Your task to perform on an android device: open app "Instagram" (install if not already installed) Image 0: 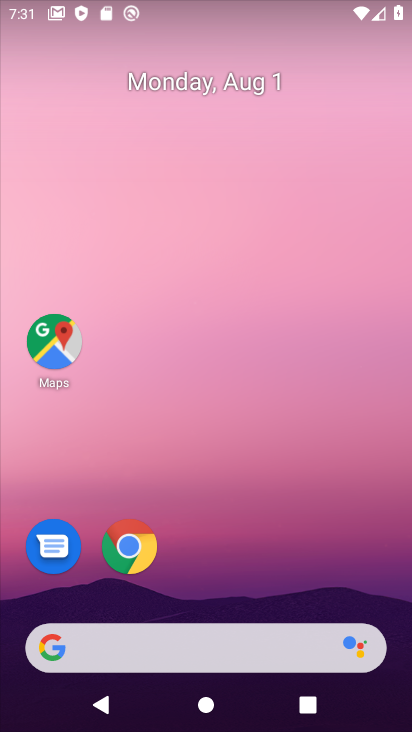
Step 0: drag from (243, 566) to (253, 57)
Your task to perform on an android device: open app "Instagram" (install if not already installed) Image 1: 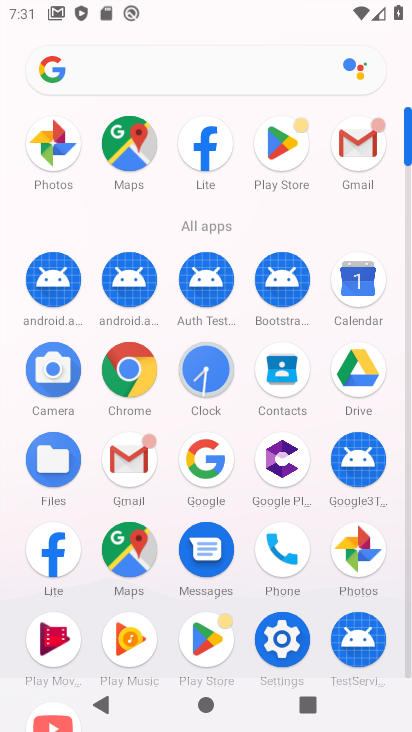
Step 1: click (202, 627)
Your task to perform on an android device: open app "Instagram" (install if not already installed) Image 2: 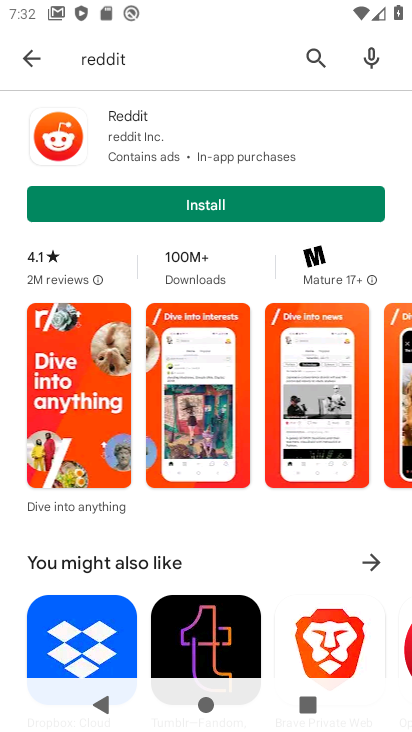
Step 2: click (276, 56)
Your task to perform on an android device: open app "Instagram" (install if not already installed) Image 3: 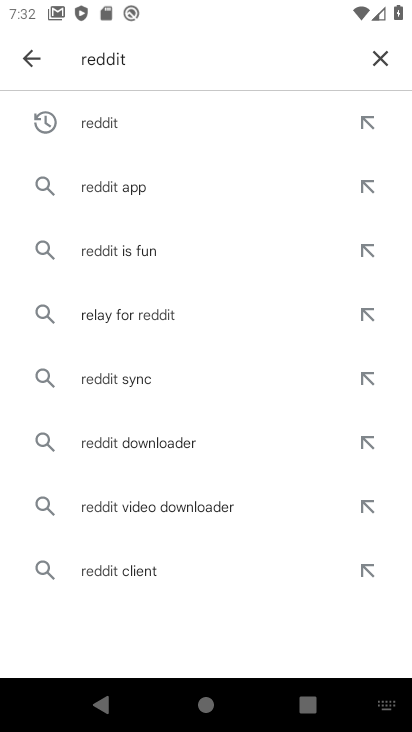
Step 3: click (380, 51)
Your task to perform on an android device: open app "Instagram" (install if not already installed) Image 4: 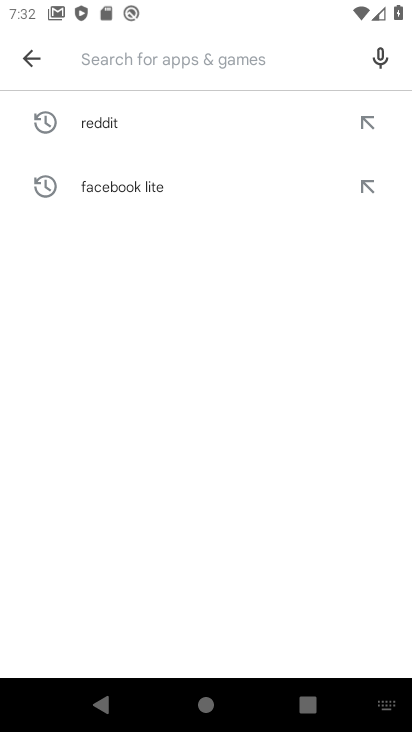
Step 4: type "instagram"
Your task to perform on an android device: open app "Instagram" (install if not already installed) Image 5: 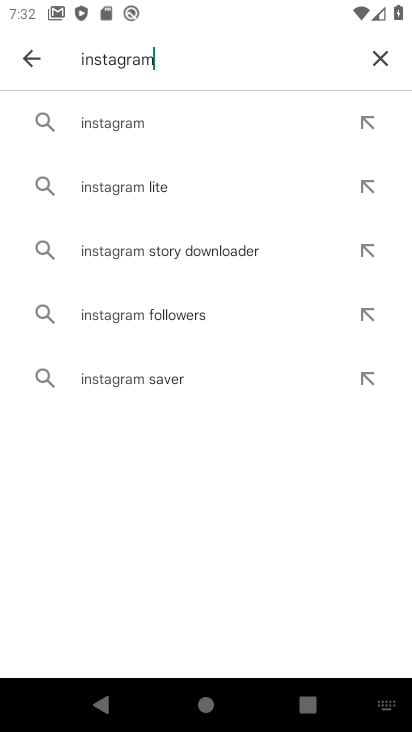
Step 5: click (131, 128)
Your task to perform on an android device: open app "Instagram" (install if not already installed) Image 6: 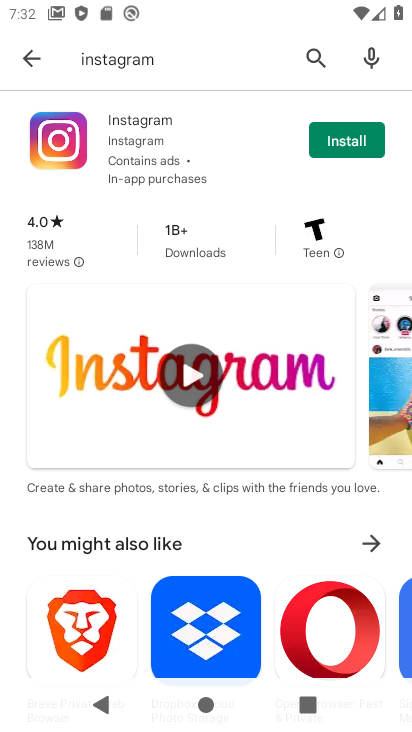
Step 6: click (354, 139)
Your task to perform on an android device: open app "Instagram" (install if not already installed) Image 7: 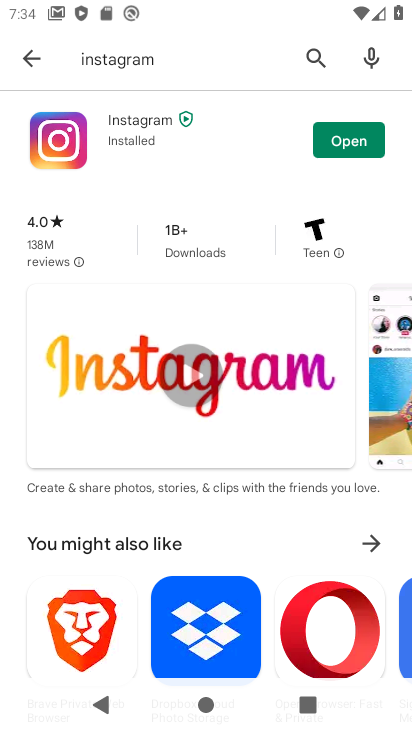
Step 7: click (353, 150)
Your task to perform on an android device: open app "Instagram" (install if not already installed) Image 8: 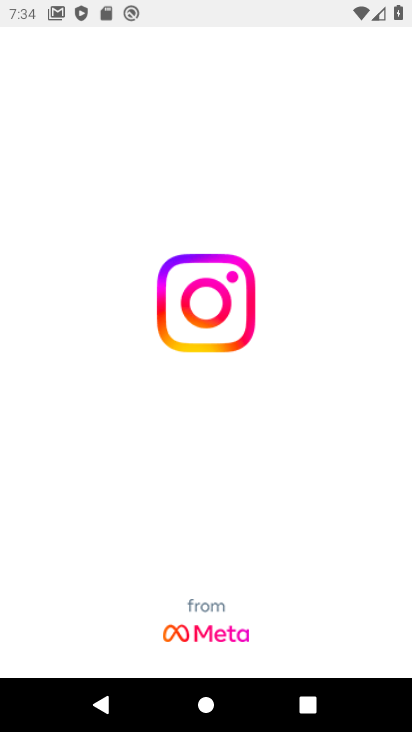
Step 8: task complete